Your task to perform on an android device: show emergency info Image 0: 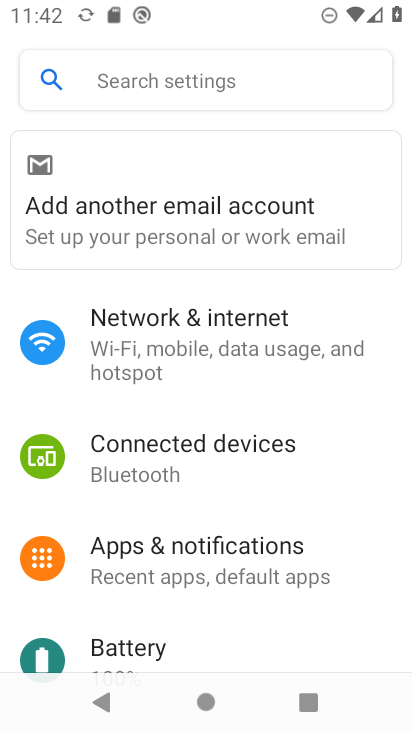
Step 0: press home button
Your task to perform on an android device: show emergency info Image 1: 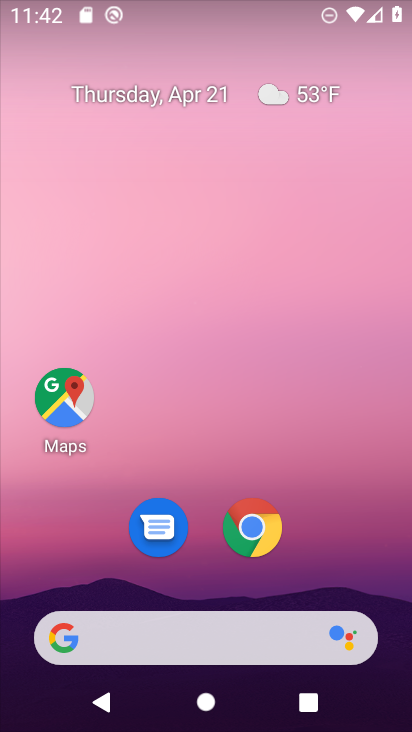
Step 1: drag from (327, 537) to (366, 130)
Your task to perform on an android device: show emergency info Image 2: 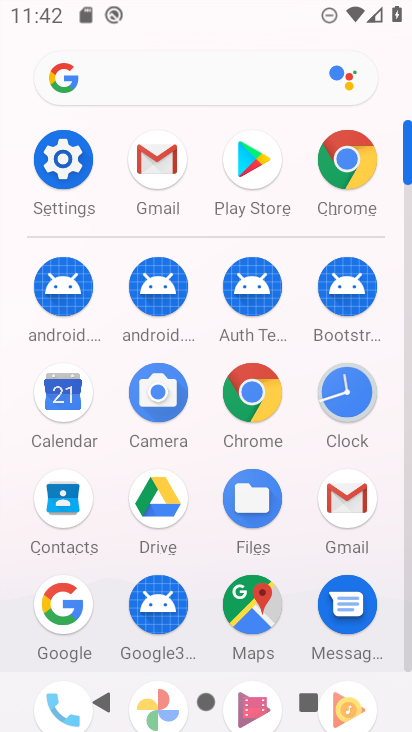
Step 2: click (50, 170)
Your task to perform on an android device: show emergency info Image 3: 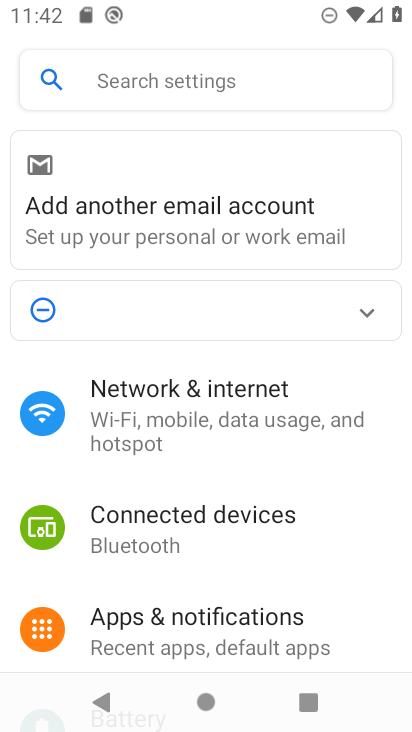
Step 3: drag from (359, 572) to (352, 433)
Your task to perform on an android device: show emergency info Image 4: 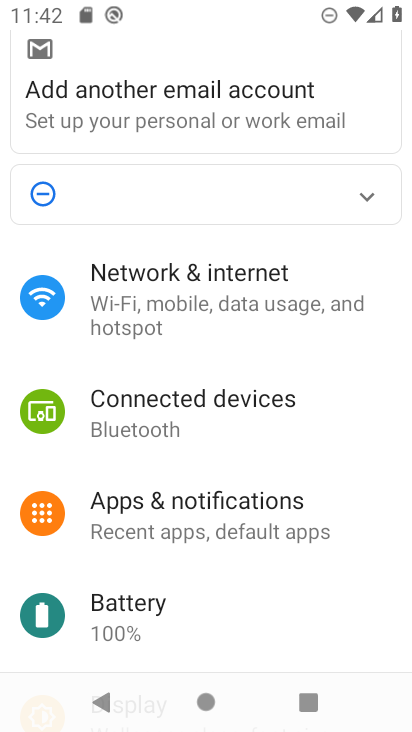
Step 4: drag from (362, 561) to (374, 410)
Your task to perform on an android device: show emergency info Image 5: 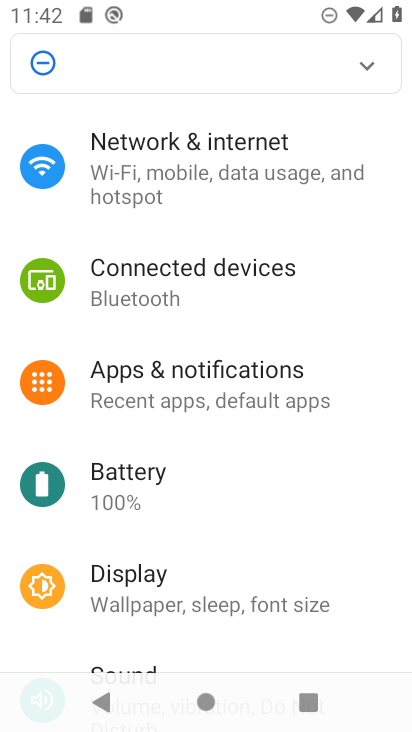
Step 5: drag from (353, 560) to (357, 421)
Your task to perform on an android device: show emergency info Image 6: 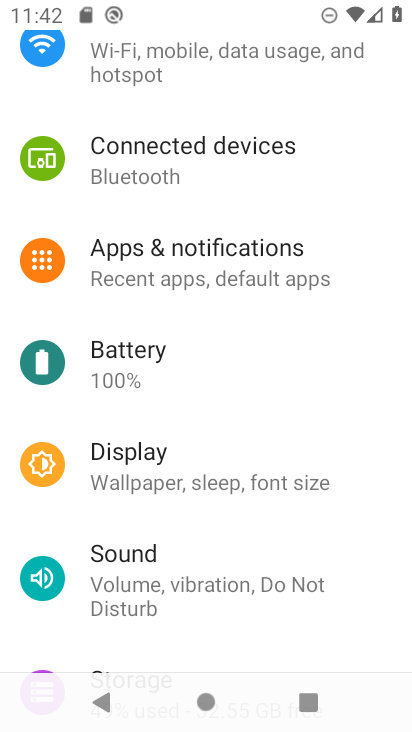
Step 6: drag from (360, 585) to (370, 444)
Your task to perform on an android device: show emergency info Image 7: 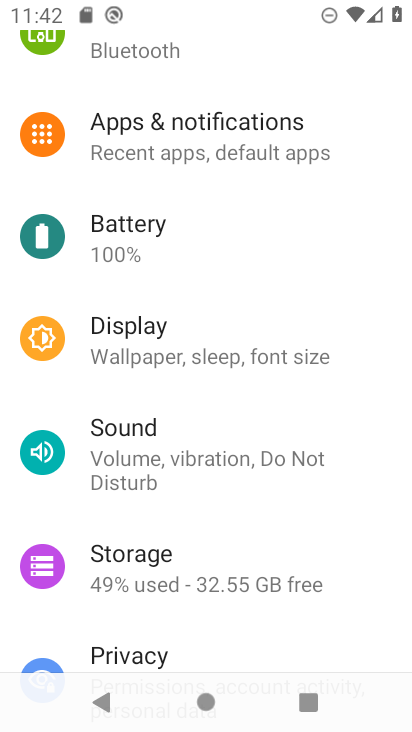
Step 7: drag from (360, 582) to (362, 449)
Your task to perform on an android device: show emergency info Image 8: 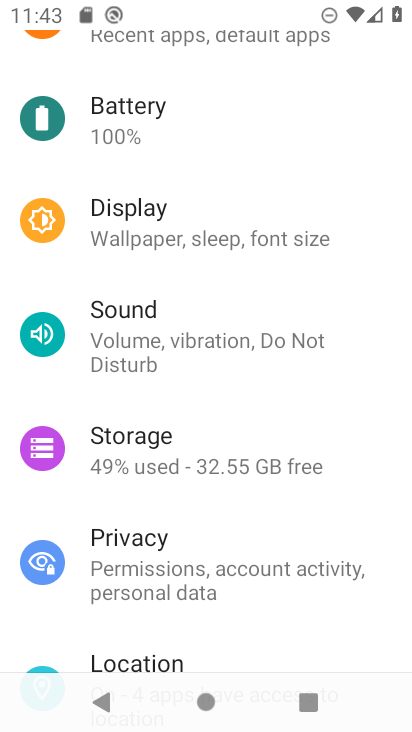
Step 8: drag from (359, 614) to (371, 450)
Your task to perform on an android device: show emergency info Image 9: 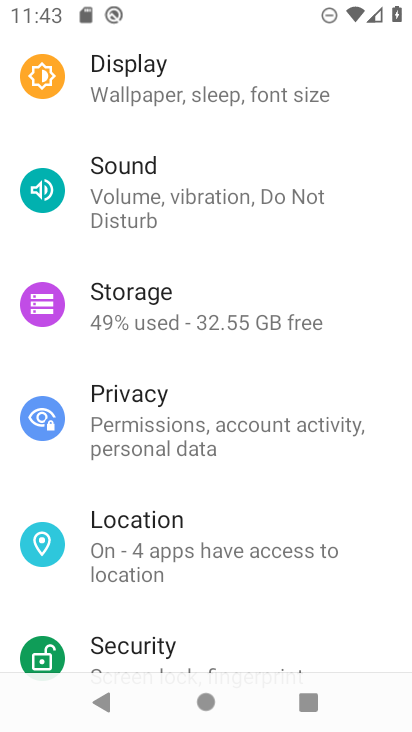
Step 9: drag from (358, 593) to (364, 442)
Your task to perform on an android device: show emergency info Image 10: 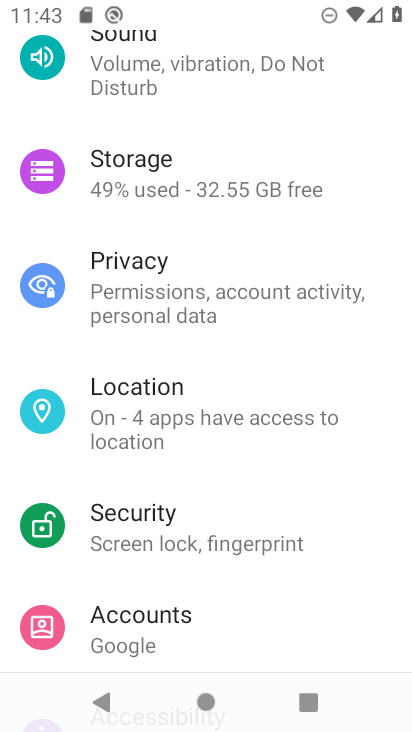
Step 10: drag from (342, 594) to (356, 453)
Your task to perform on an android device: show emergency info Image 11: 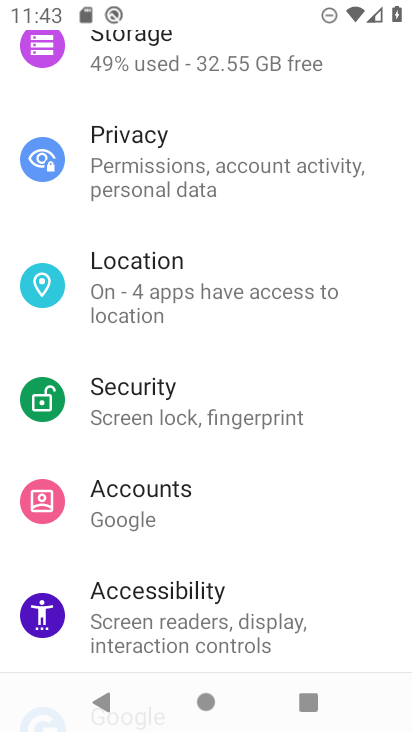
Step 11: drag from (360, 611) to (369, 439)
Your task to perform on an android device: show emergency info Image 12: 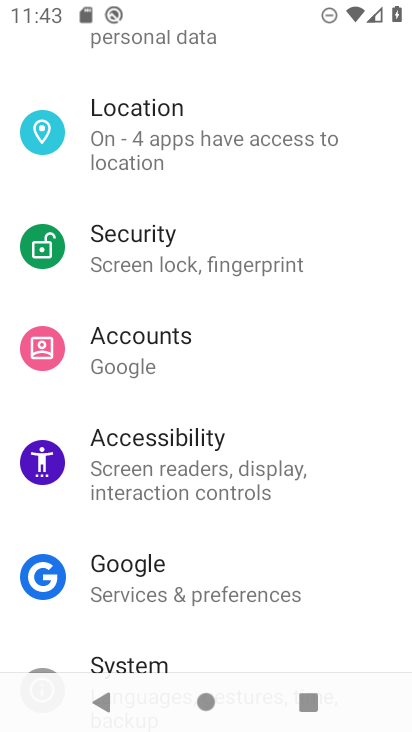
Step 12: drag from (347, 621) to (350, 466)
Your task to perform on an android device: show emergency info Image 13: 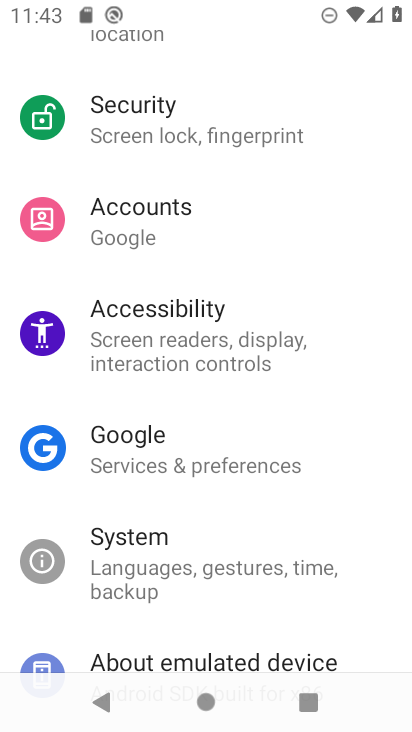
Step 13: drag from (360, 600) to (361, 466)
Your task to perform on an android device: show emergency info Image 14: 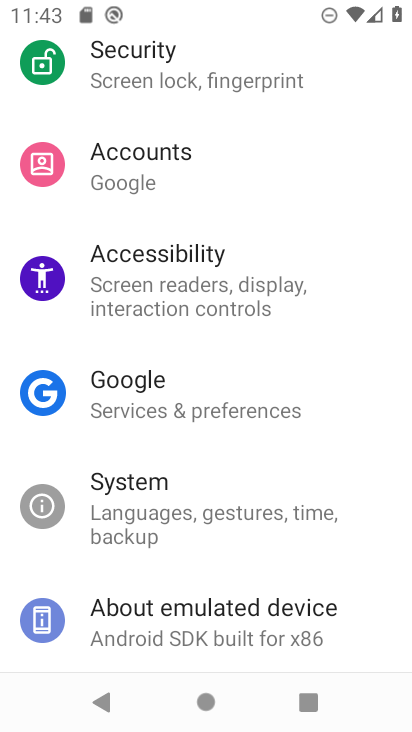
Step 14: click (267, 625)
Your task to perform on an android device: show emergency info Image 15: 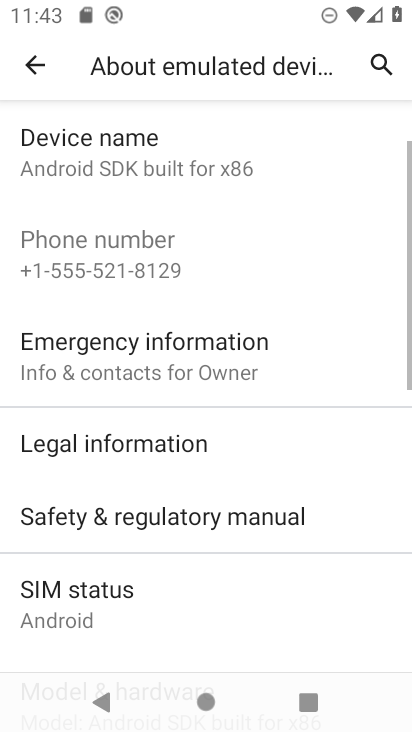
Step 15: click (227, 362)
Your task to perform on an android device: show emergency info Image 16: 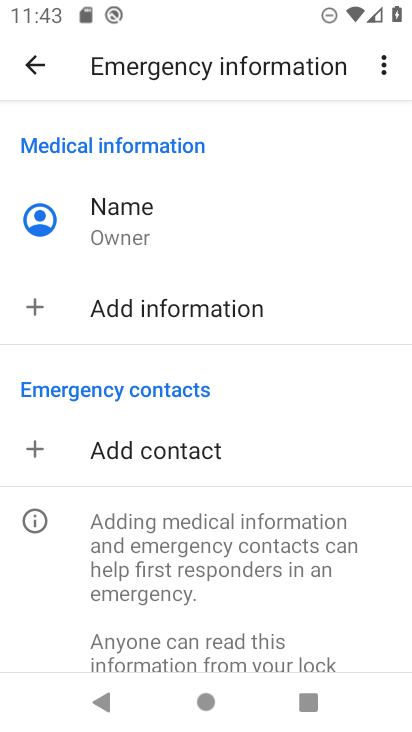
Step 16: task complete